Your task to perform on an android device: remove spam from my inbox in the gmail app Image 0: 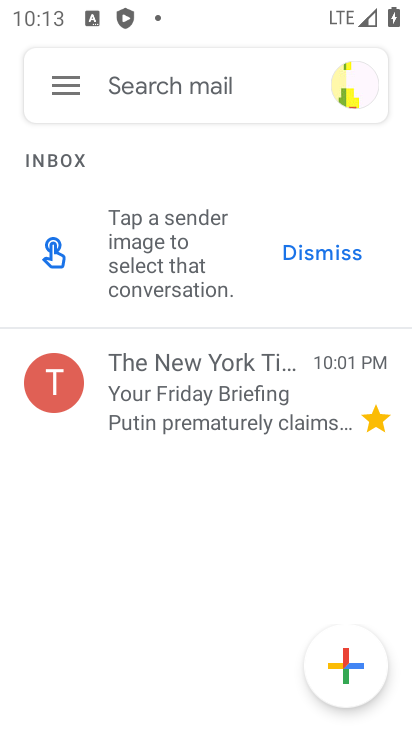
Step 0: click (56, 72)
Your task to perform on an android device: remove spam from my inbox in the gmail app Image 1: 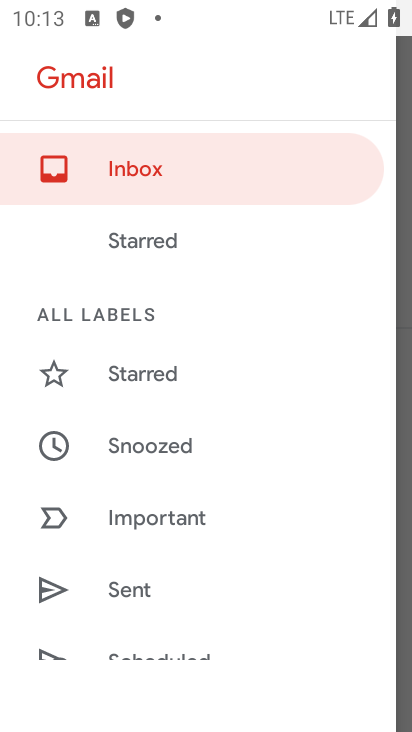
Step 1: drag from (237, 593) to (237, 168)
Your task to perform on an android device: remove spam from my inbox in the gmail app Image 2: 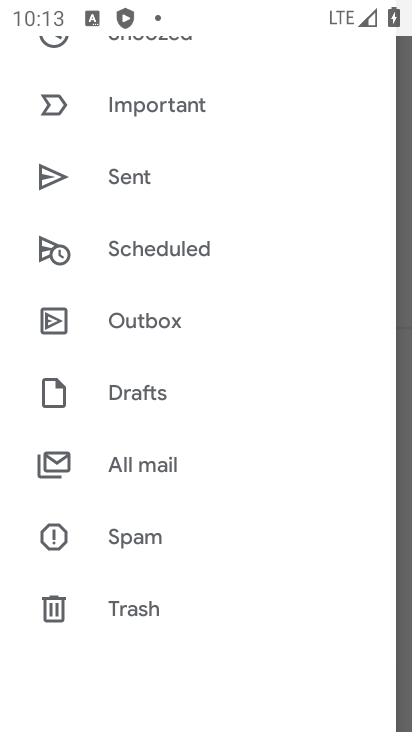
Step 2: click (153, 537)
Your task to perform on an android device: remove spam from my inbox in the gmail app Image 3: 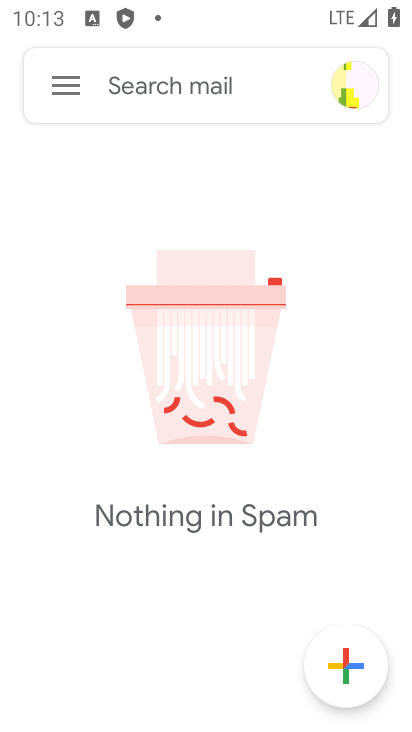
Step 3: task complete